Your task to perform on an android device: turn on javascript in the chrome app Image 0: 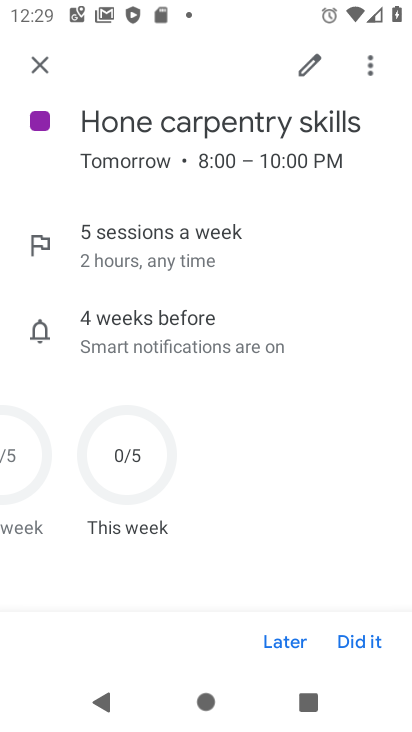
Step 0: press home button
Your task to perform on an android device: turn on javascript in the chrome app Image 1: 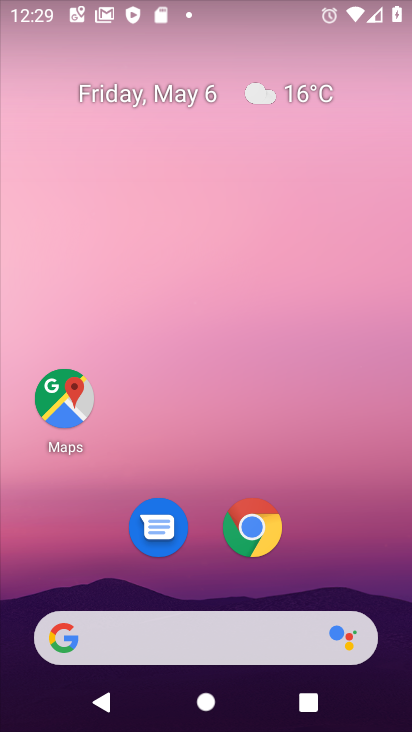
Step 1: click (246, 515)
Your task to perform on an android device: turn on javascript in the chrome app Image 2: 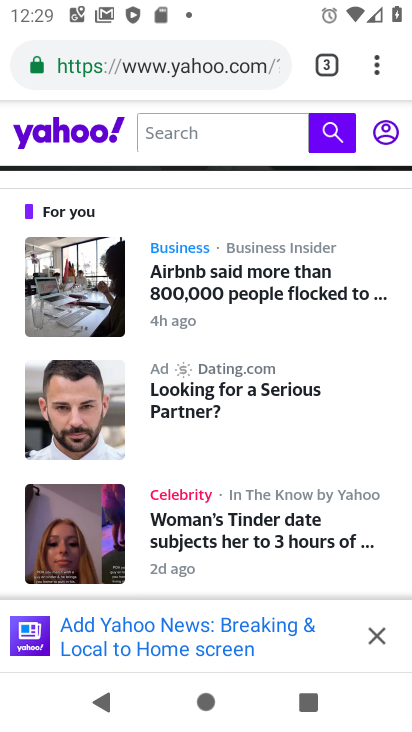
Step 2: drag from (377, 60) to (141, 576)
Your task to perform on an android device: turn on javascript in the chrome app Image 3: 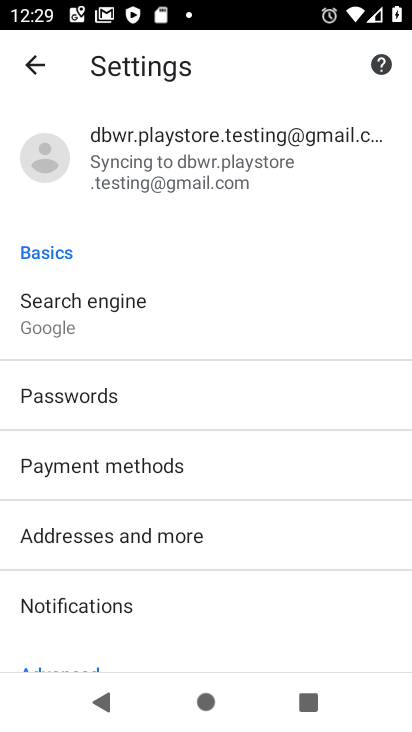
Step 3: drag from (195, 630) to (166, 316)
Your task to perform on an android device: turn on javascript in the chrome app Image 4: 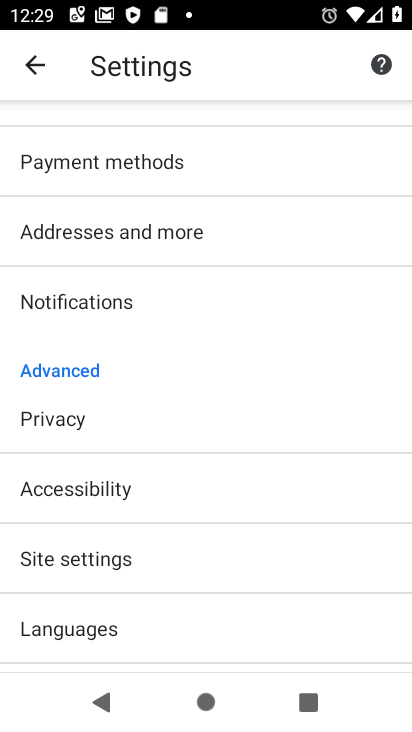
Step 4: click (58, 557)
Your task to perform on an android device: turn on javascript in the chrome app Image 5: 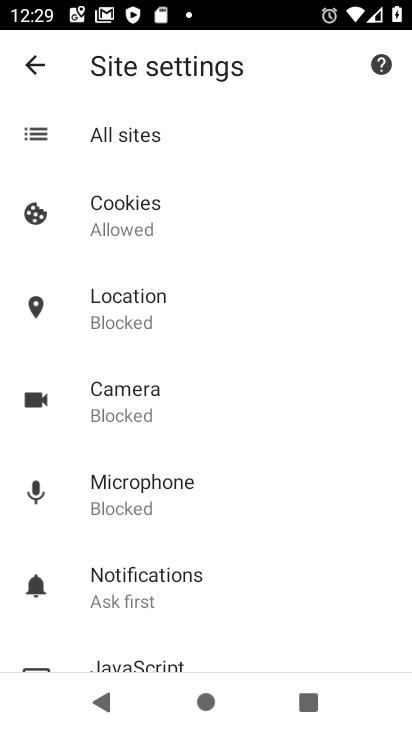
Step 5: click (135, 660)
Your task to perform on an android device: turn on javascript in the chrome app Image 6: 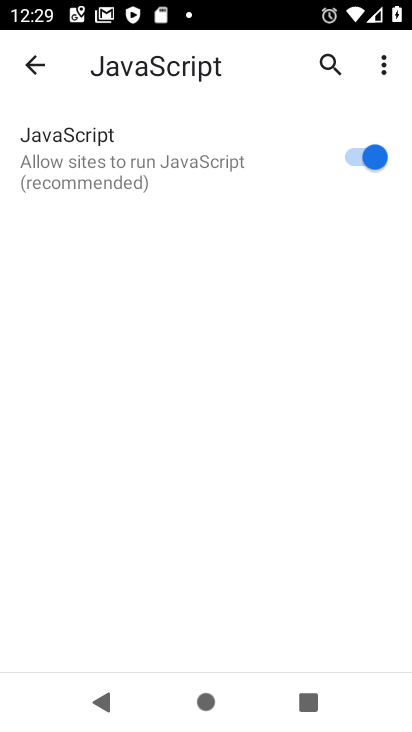
Step 6: task complete